Your task to perform on an android device: Open battery settings Image 0: 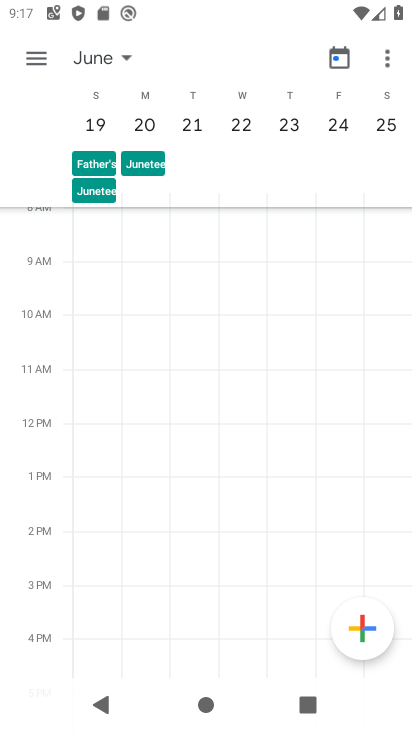
Step 0: press home button
Your task to perform on an android device: Open battery settings Image 1: 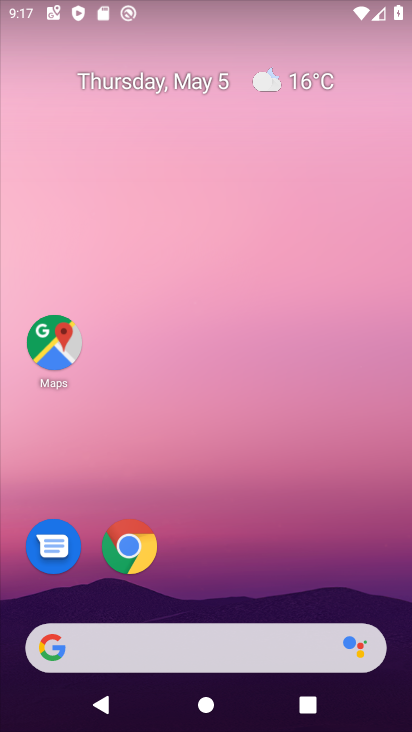
Step 1: drag from (201, 650) to (299, 72)
Your task to perform on an android device: Open battery settings Image 2: 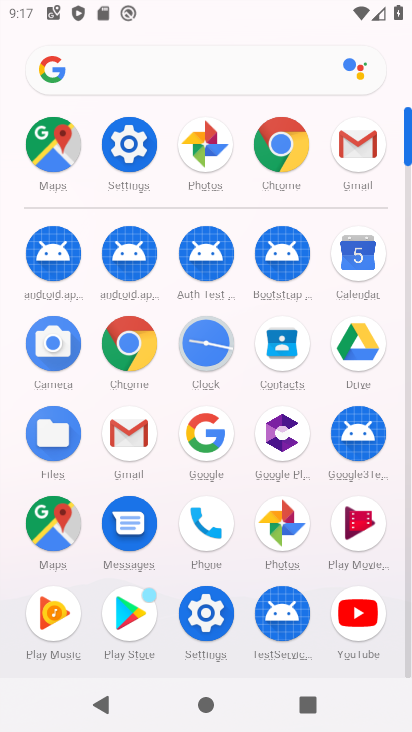
Step 2: click (125, 155)
Your task to perform on an android device: Open battery settings Image 3: 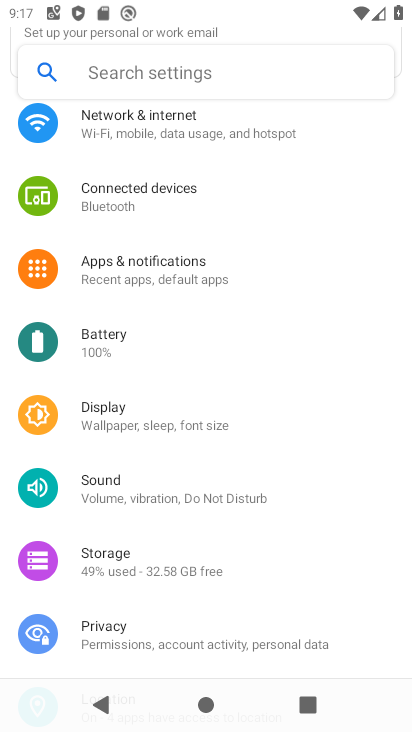
Step 3: click (118, 346)
Your task to perform on an android device: Open battery settings Image 4: 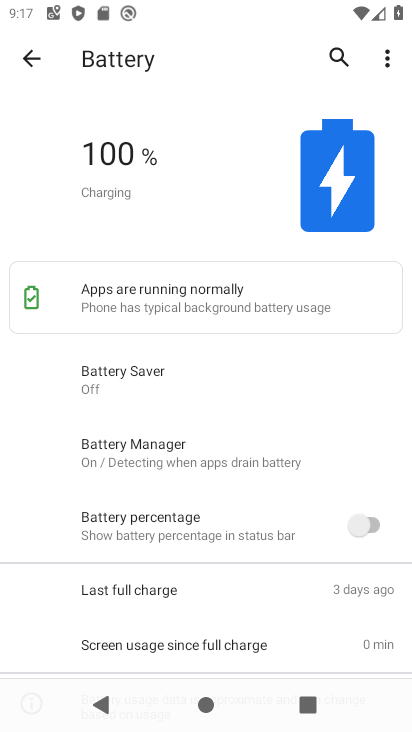
Step 4: task complete